Your task to perform on an android device: turn on bluetooth scan Image 0: 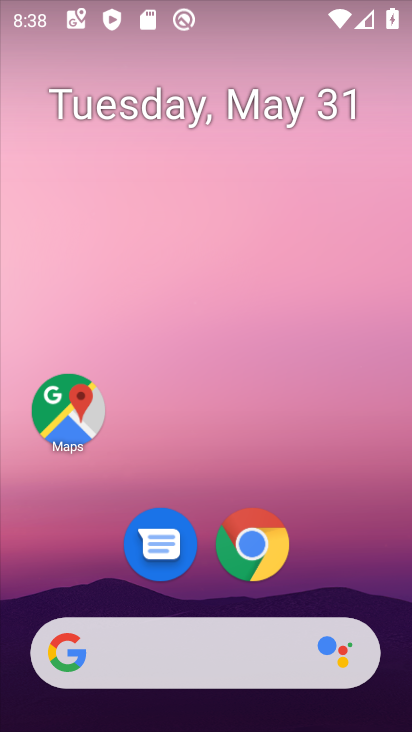
Step 0: drag from (315, 586) to (355, 31)
Your task to perform on an android device: turn on bluetooth scan Image 1: 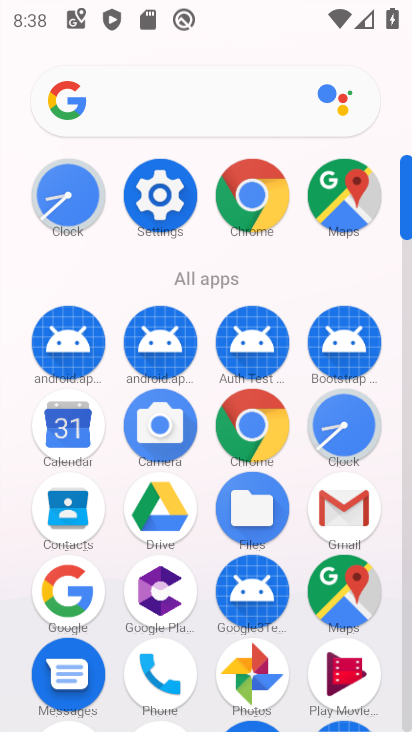
Step 1: click (154, 195)
Your task to perform on an android device: turn on bluetooth scan Image 2: 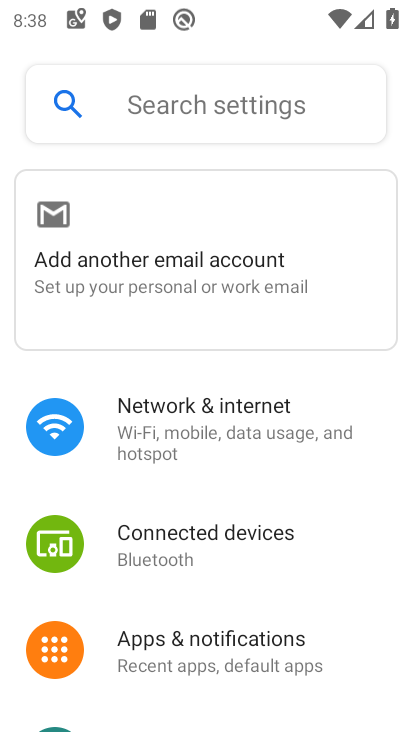
Step 2: drag from (194, 642) to (232, 282)
Your task to perform on an android device: turn on bluetooth scan Image 3: 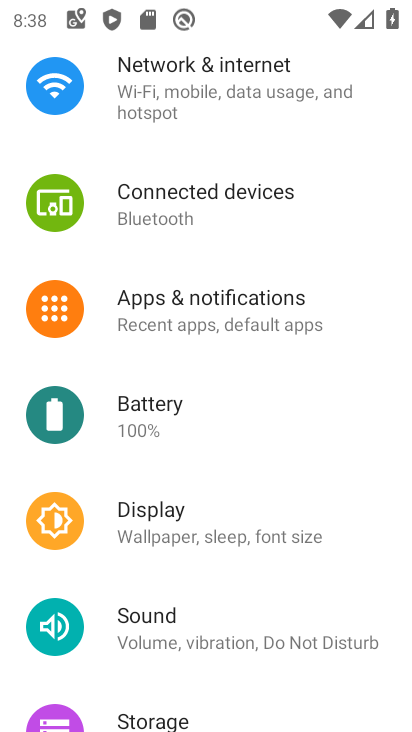
Step 3: drag from (184, 680) to (197, 163)
Your task to perform on an android device: turn on bluetooth scan Image 4: 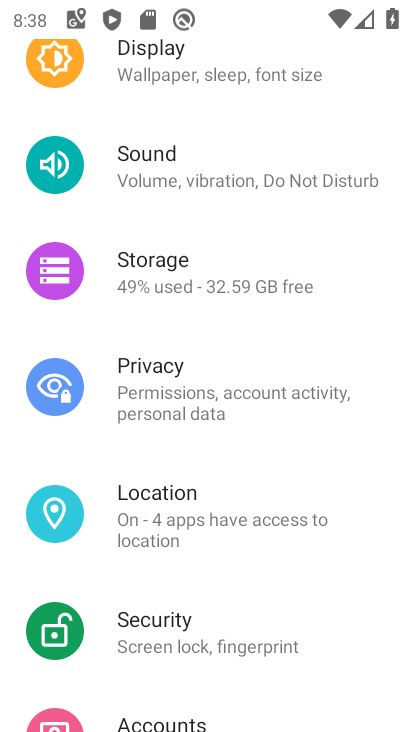
Step 4: click (215, 528)
Your task to perform on an android device: turn on bluetooth scan Image 5: 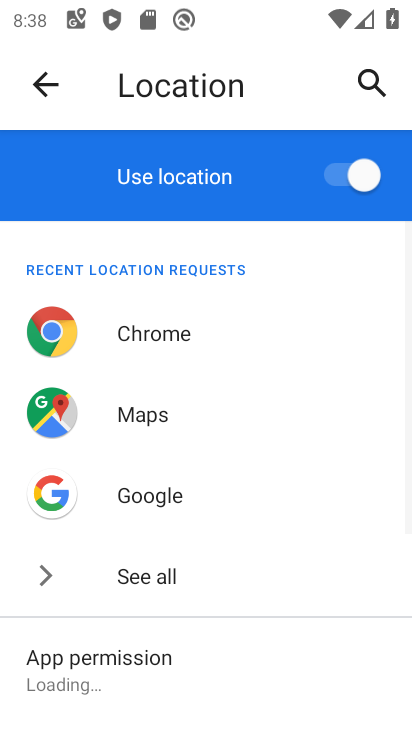
Step 5: drag from (232, 614) to (234, 239)
Your task to perform on an android device: turn on bluetooth scan Image 6: 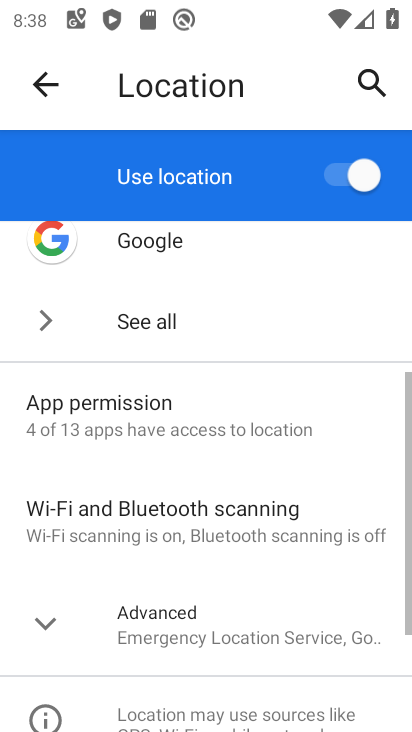
Step 6: click (158, 546)
Your task to perform on an android device: turn on bluetooth scan Image 7: 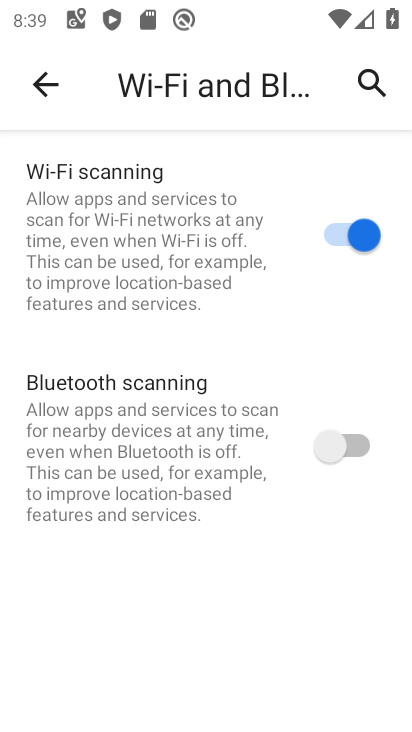
Step 7: click (343, 446)
Your task to perform on an android device: turn on bluetooth scan Image 8: 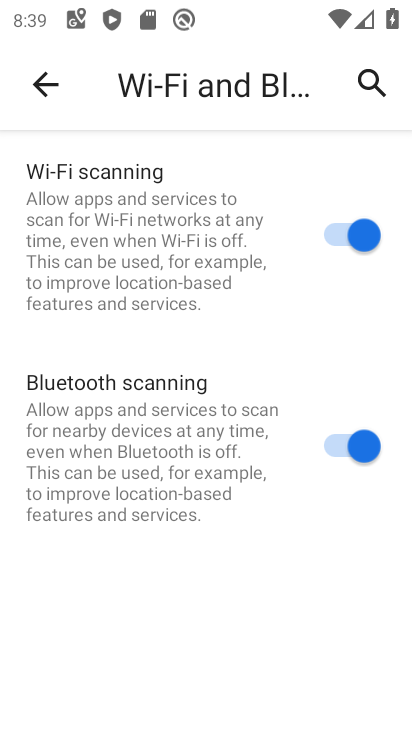
Step 8: task complete